Your task to perform on an android device: Open Google Image 0: 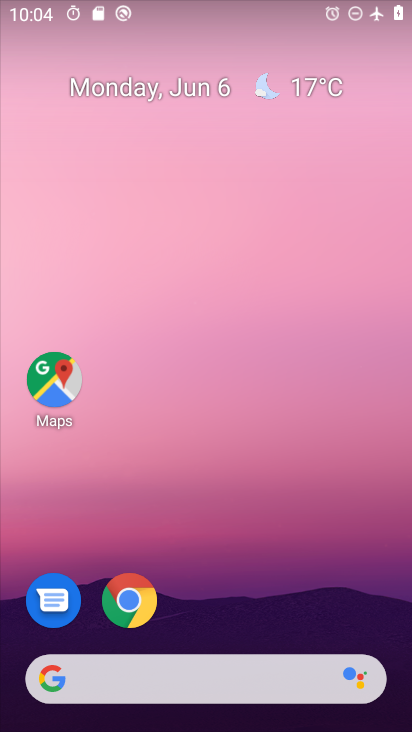
Step 0: drag from (301, 573) to (193, 7)
Your task to perform on an android device: Open Google Image 1: 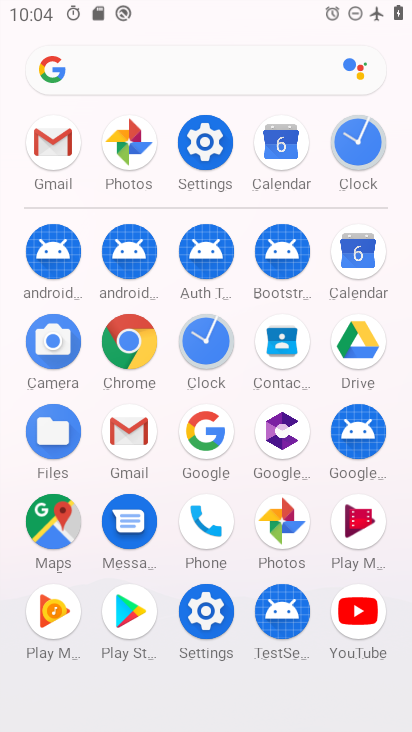
Step 1: click (211, 429)
Your task to perform on an android device: Open Google Image 2: 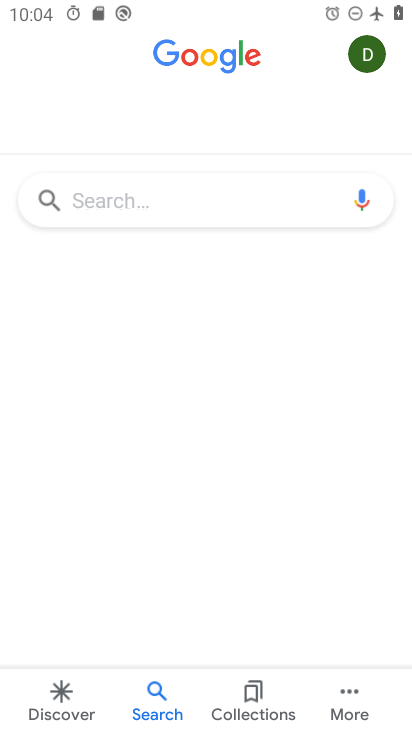
Step 2: task complete